Your task to perform on an android device: turn pop-ups off in chrome Image 0: 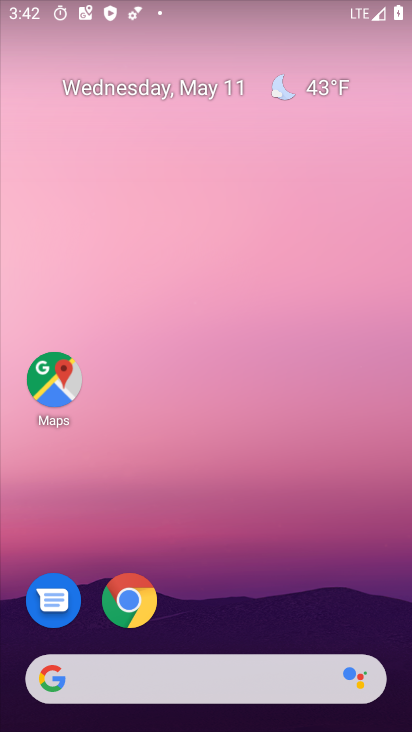
Step 0: click (130, 605)
Your task to perform on an android device: turn pop-ups off in chrome Image 1: 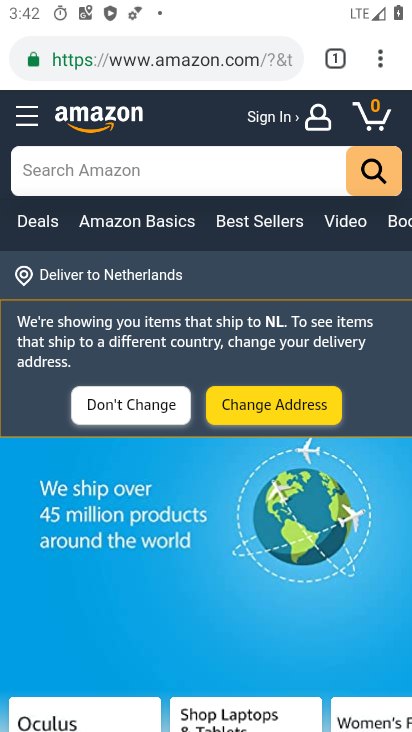
Step 1: drag from (379, 59) to (192, 635)
Your task to perform on an android device: turn pop-ups off in chrome Image 2: 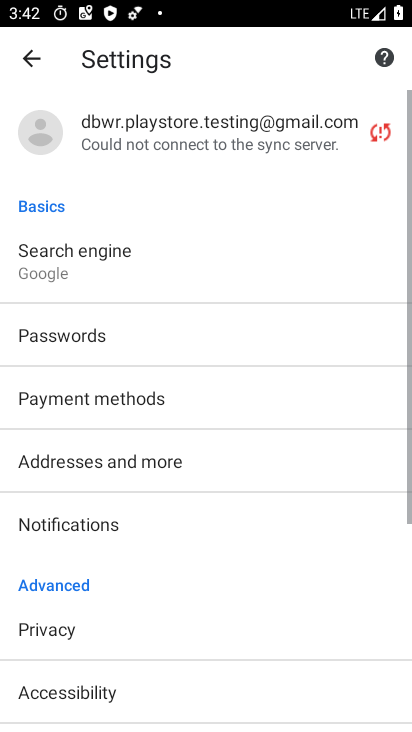
Step 2: drag from (192, 635) to (189, 148)
Your task to perform on an android device: turn pop-ups off in chrome Image 3: 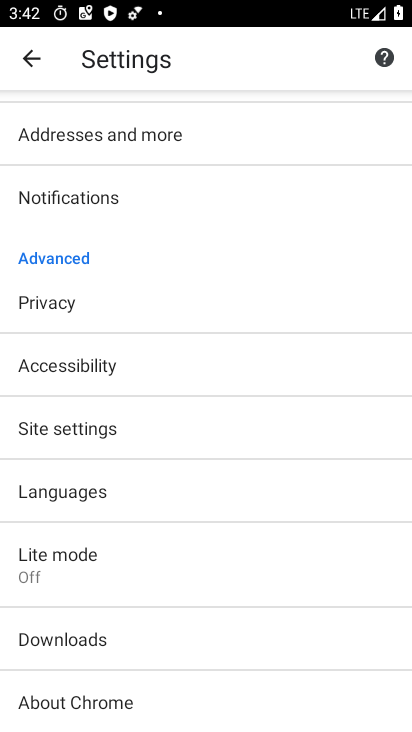
Step 3: click (88, 430)
Your task to perform on an android device: turn pop-ups off in chrome Image 4: 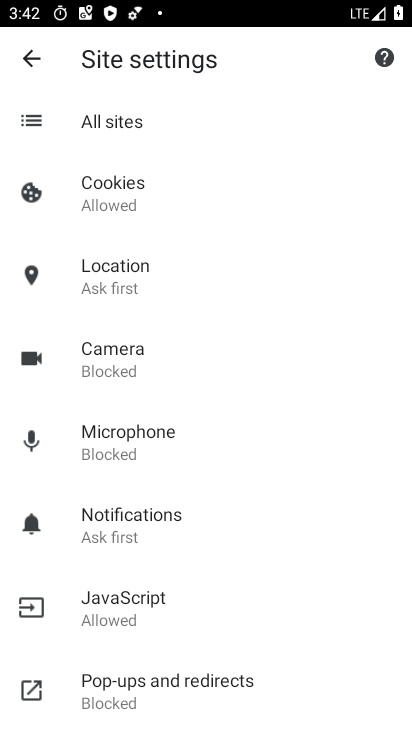
Step 4: click (135, 690)
Your task to perform on an android device: turn pop-ups off in chrome Image 5: 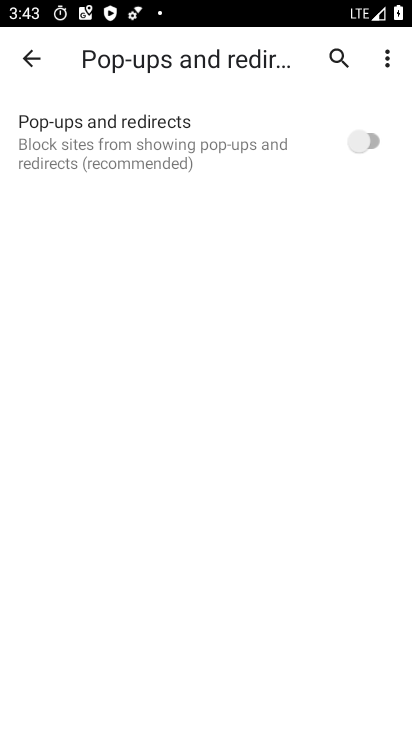
Step 5: task complete